Your task to perform on an android device: Clear all items from cart on ebay.com. Add "energizer triple a" to the cart on ebay.com, then select checkout. Image 0: 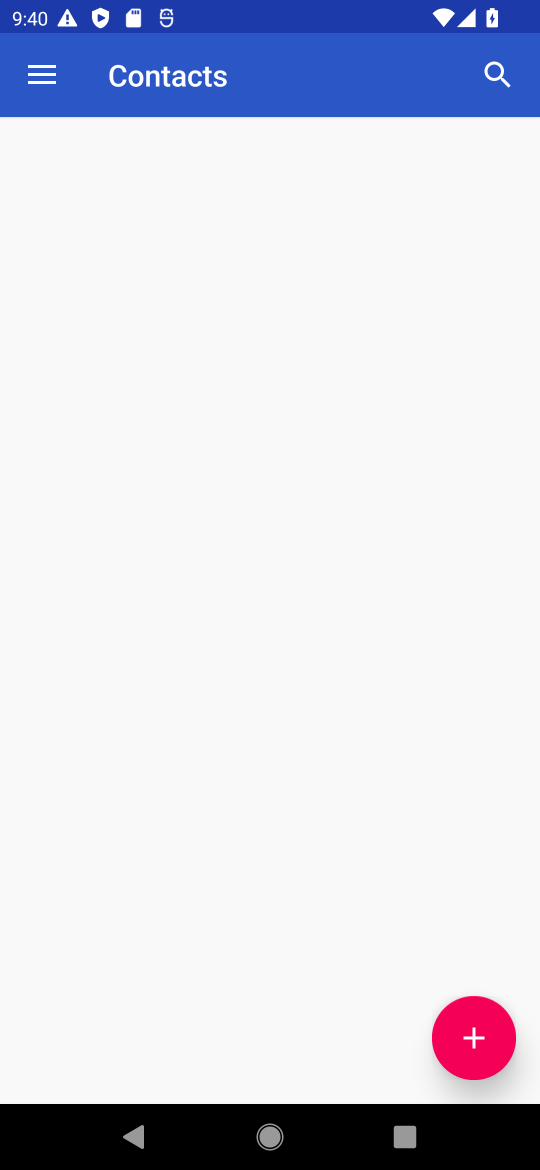
Step 0: press home button
Your task to perform on an android device: Clear all items from cart on ebay.com. Add "energizer triple a" to the cart on ebay.com, then select checkout. Image 1: 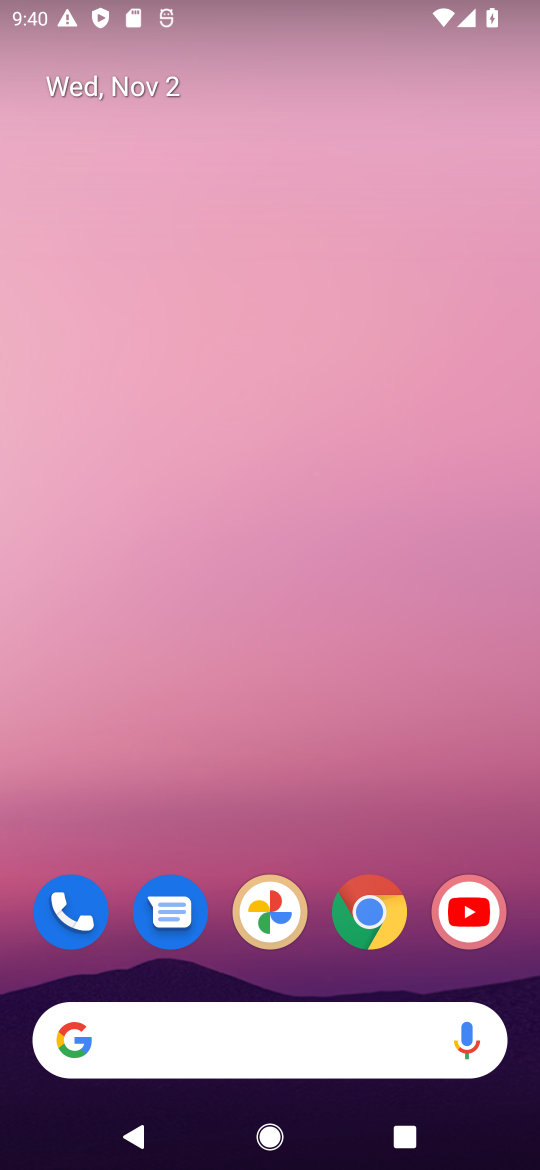
Step 1: drag from (348, 1112) to (315, 18)
Your task to perform on an android device: Clear all items from cart on ebay.com. Add "energizer triple a" to the cart on ebay.com, then select checkout. Image 2: 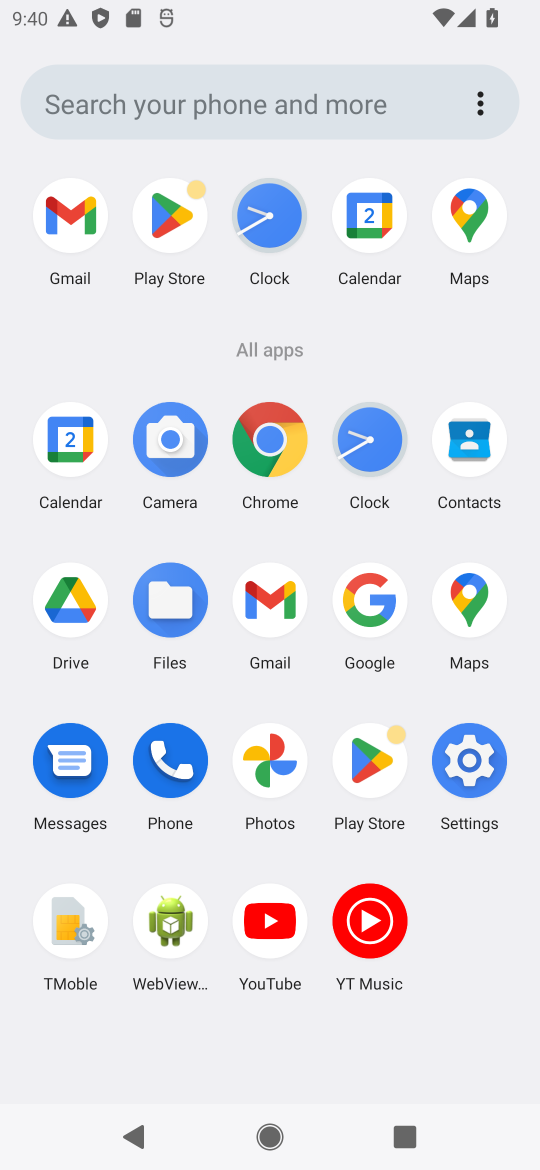
Step 2: click (263, 436)
Your task to perform on an android device: Clear all items from cart on ebay.com. Add "energizer triple a" to the cart on ebay.com, then select checkout. Image 3: 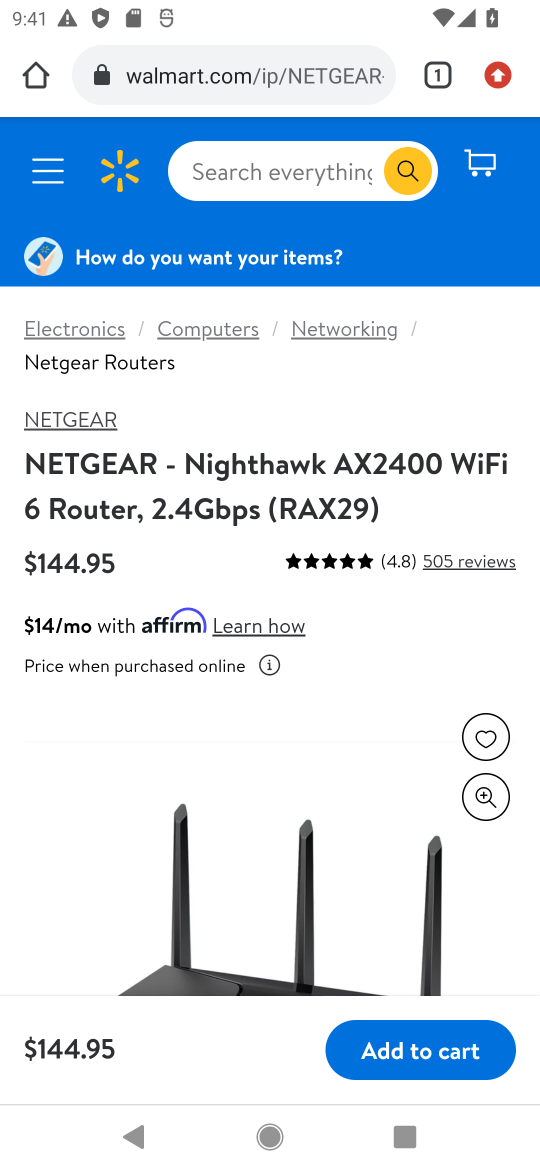
Step 3: click (264, 157)
Your task to perform on an android device: Clear all items from cart on ebay.com. Add "energizer triple a" to the cart on ebay.com, then select checkout. Image 4: 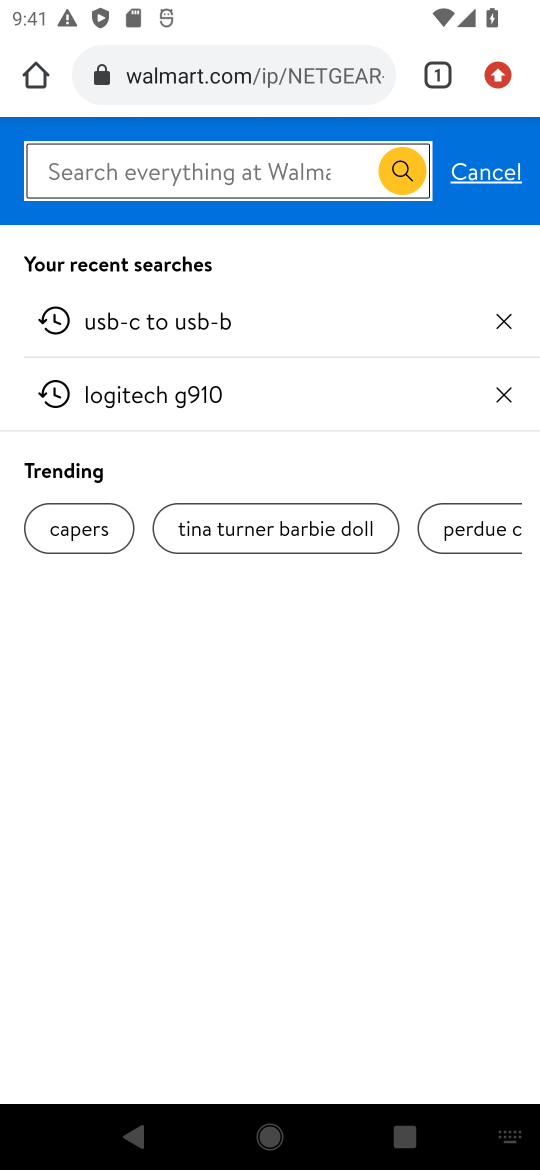
Step 4: type "energizer triple a"
Your task to perform on an android device: Clear all items from cart on ebay.com. Add "energizer triple a" to the cart on ebay.com, then select checkout. Image 5: 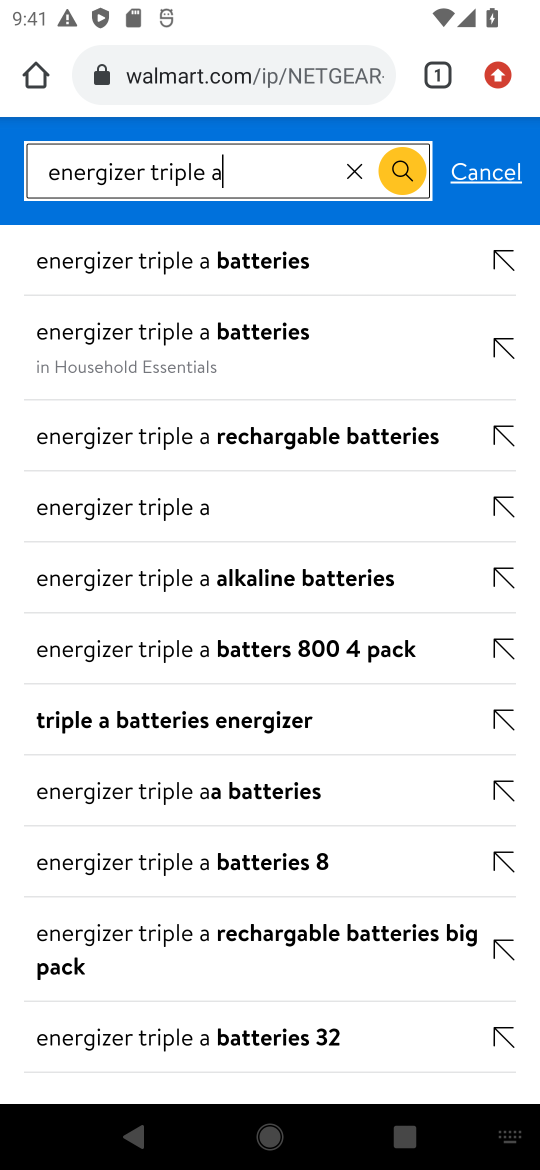
Step 5: click (143, 505)
Your task to perform on an android device: Clear all items from cart on ebay.com. Add "energizer triple a" to the cart on ebay.com, then select checkout. Image 6: 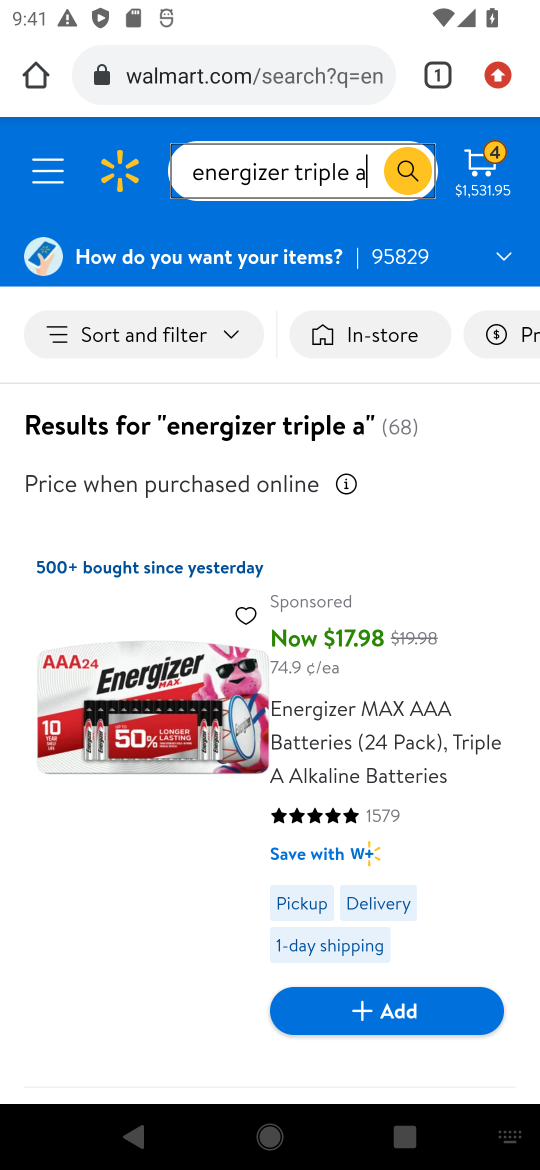
Step 6: click (134, 714)
Your task to perform on an android device: Clear all items from cart on ebay.com. Add "energizer triple a" to the cart on ebay.com, then select checkout. Image 7: 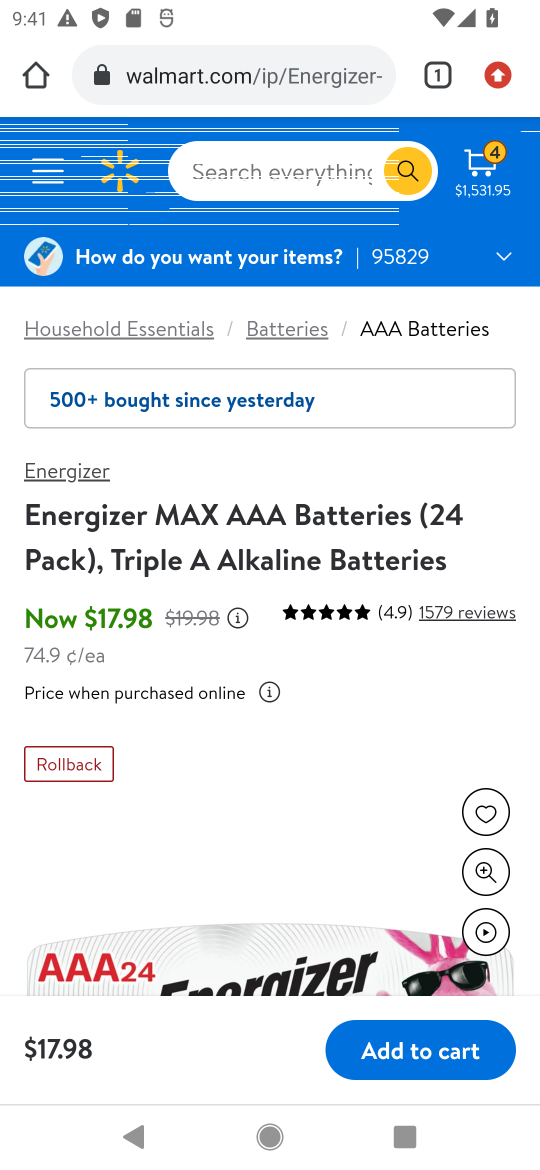
Step 7: click (417, 1057)
Your task to perform on an android device: Clear all items from cart on ebay.com. Add "energizer triple a" to the cart on ebay.com, then select checkout. Image 8: 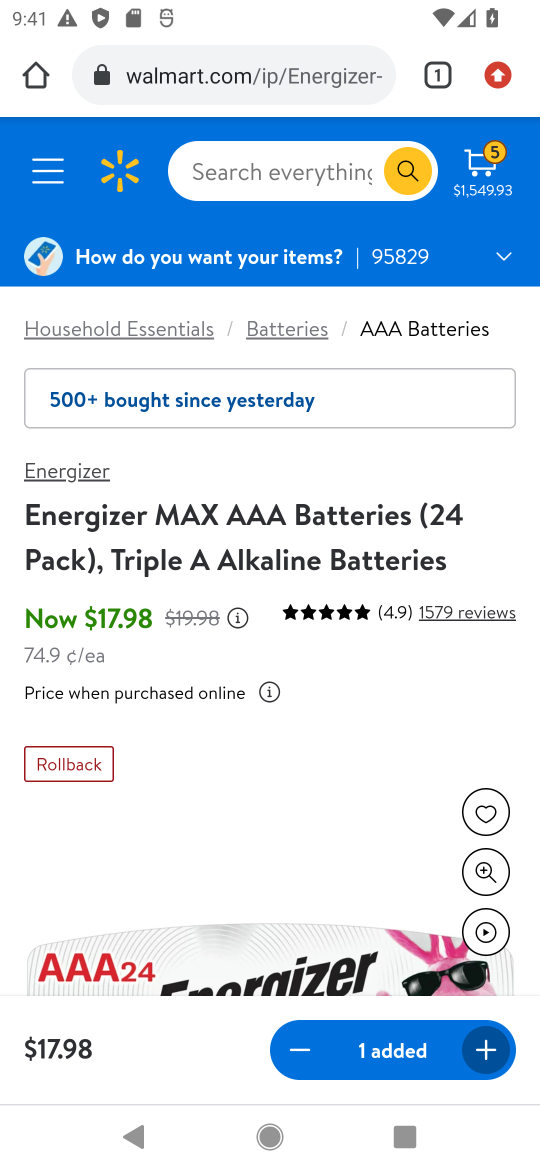
Step 8: task complete